Your task to perform on an android device: change the clock display to digital Image 0: 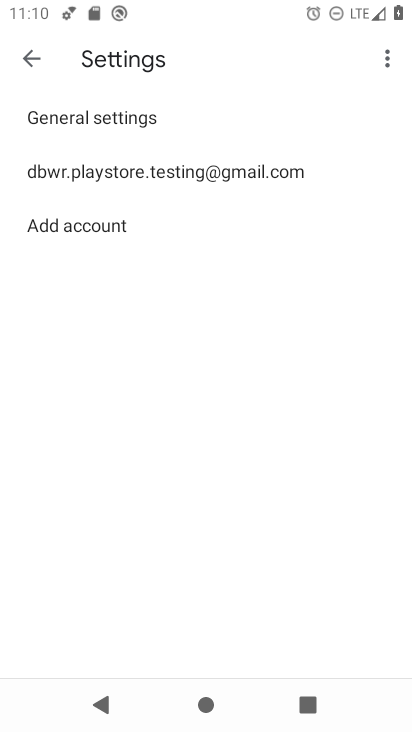
Step 0: press home button
Your task to perform on an android device: change the clock display to digital Image 1: 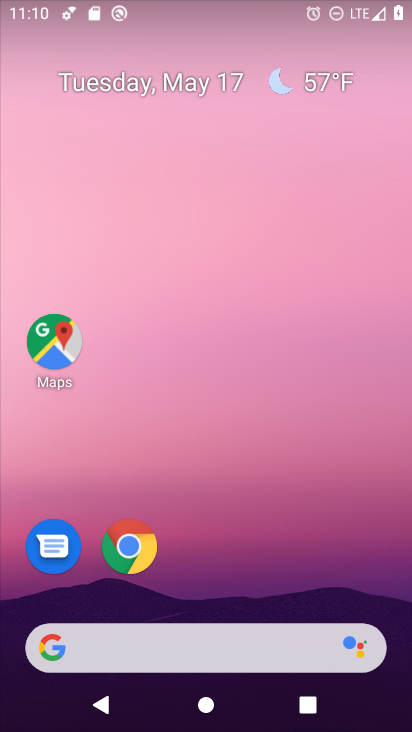
Step 1: drag from (269, 578) to (276, 5)
Your task to perform on an android device: change the clock display to digital Image 2: 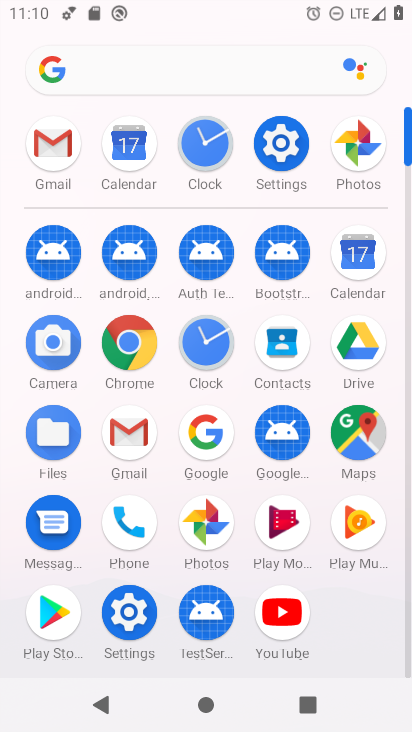
Step 2: click (199, 153)
Your task to perform on an android device: change the clock display to digital Image 3: 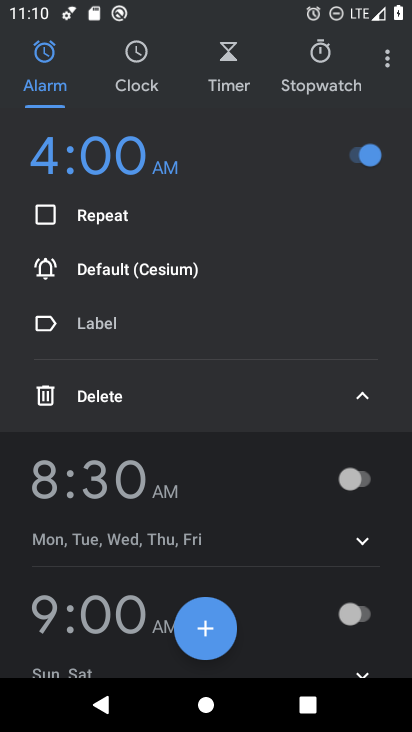
Step 3: click (385, 57)
Your task to perform on an android device: change the clock display to digital Image 4: 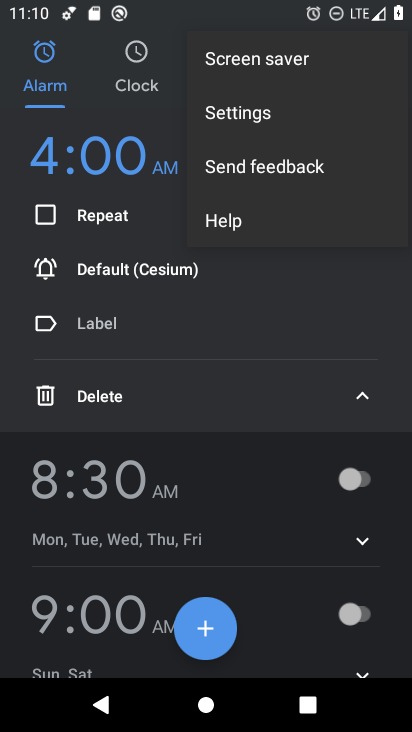
Step 4: click (260, 125)
Your task to perform on an android device: change the clock display to digital Image 5: 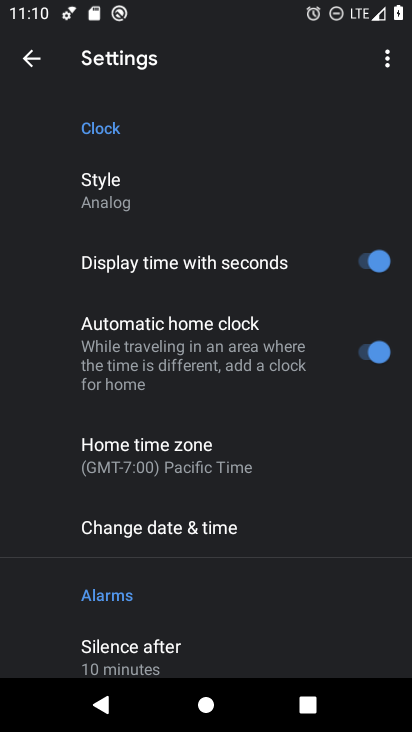
Step 5: click (109, 202)
Your task to perform on an android device: change the clock display to digital Image 6: 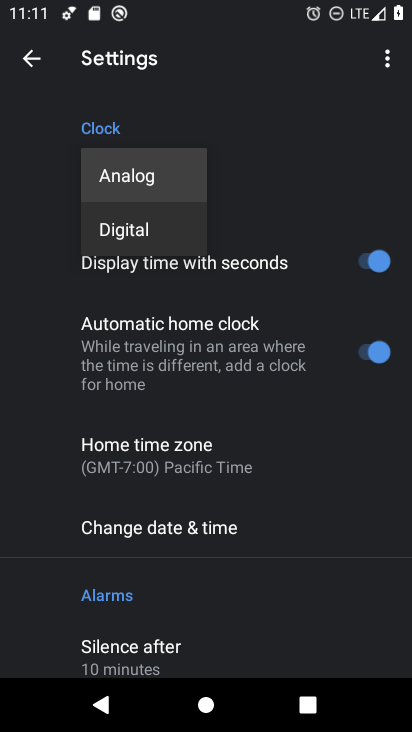
Step 6: click (130, 236)
Your task to perform on an android device: change the clock display to digital Image 7: 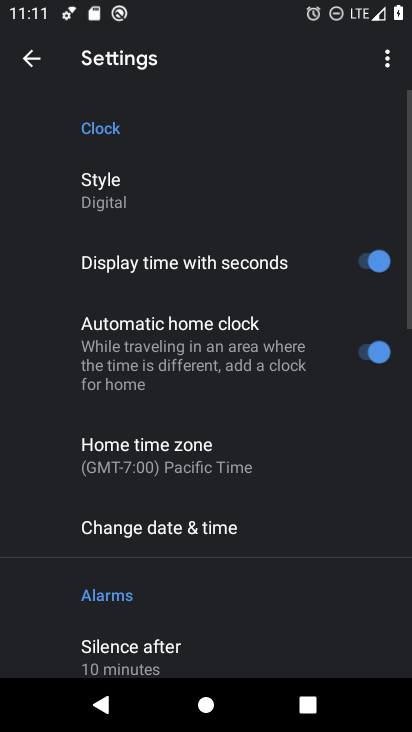
Step 7: task complete